Your task to perform on an android device: Go to Google maps Image 0: 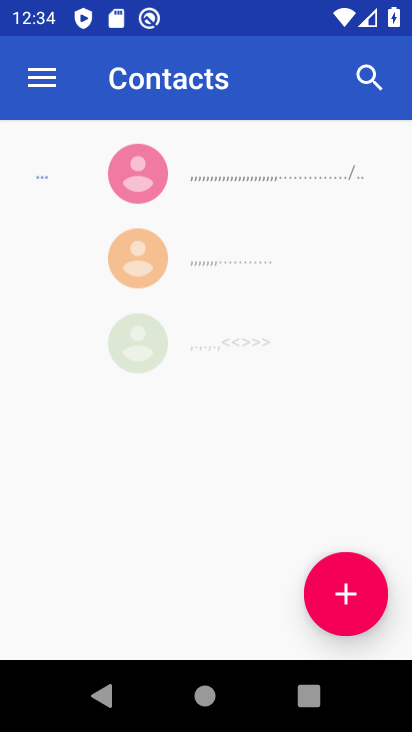
Step 0: drag from (356, 541) to (320, 277)
Your task to perform on an android device: Go to Google maps Image 1: 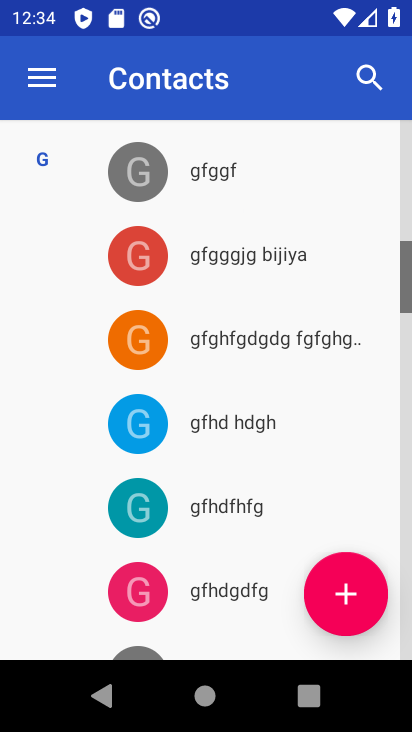
Step 1: press home button
Your task to perform on an android device: Go to Google maps Image 2: 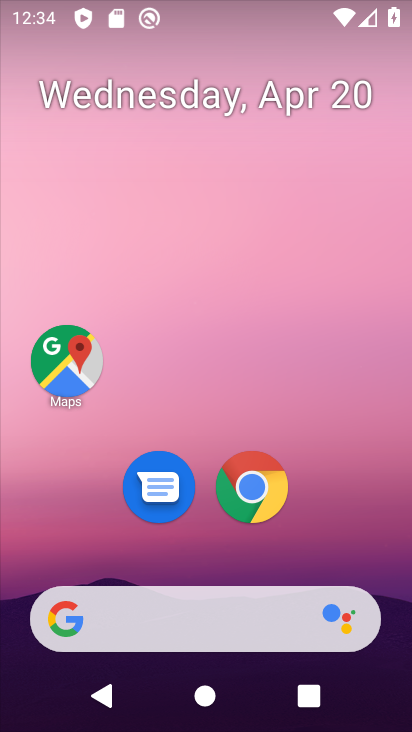
Step 2: drag from (347, 546) to (244, 33)
Your task to perform on an android device: Go to Google maps Image 3: 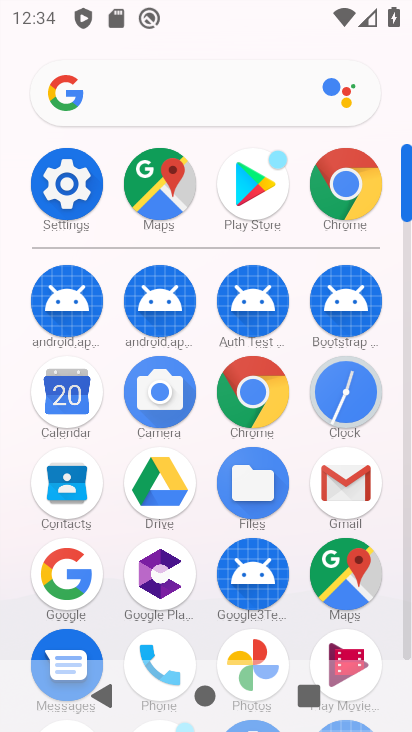
Step 3: click (330, 565)
Your task to perform on an android device: Go to Google maps Image 4: 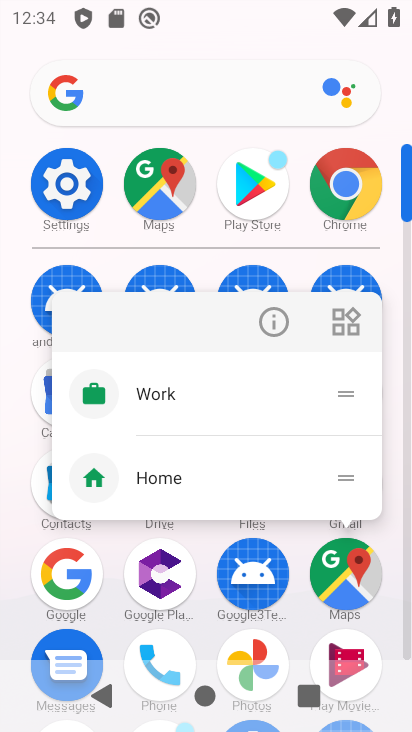
Step 4: click (330, 565)
Your task to perform on an android device: Go to Google maps Image 5: 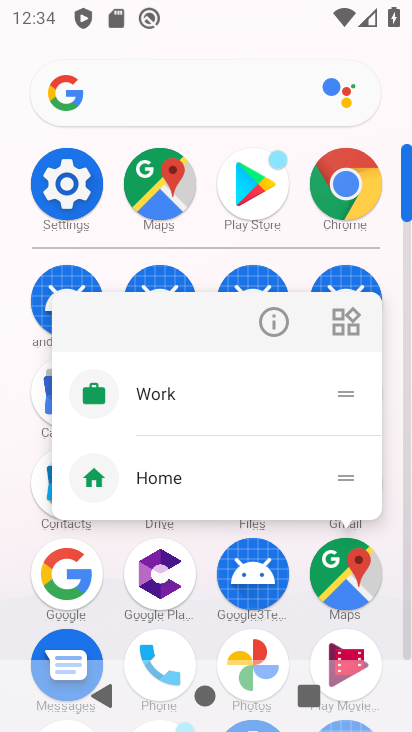
Step 5: click (330, 565)
Your task to perform on an android device: Go to Google maps Image 6: 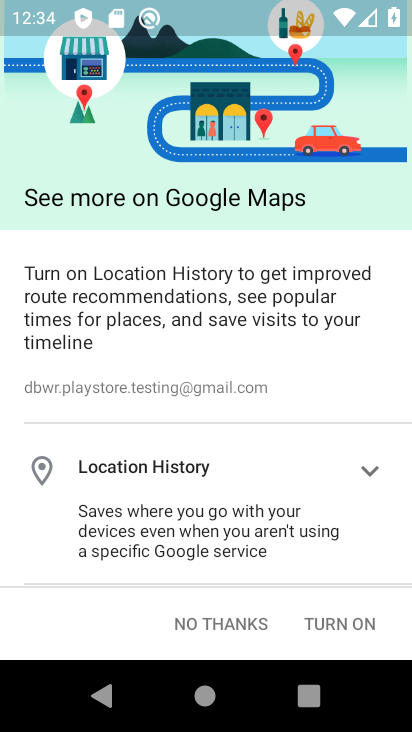
Step 6: click (240, 624)
Your task to perform on an android device: Go to Google maps Image 7: 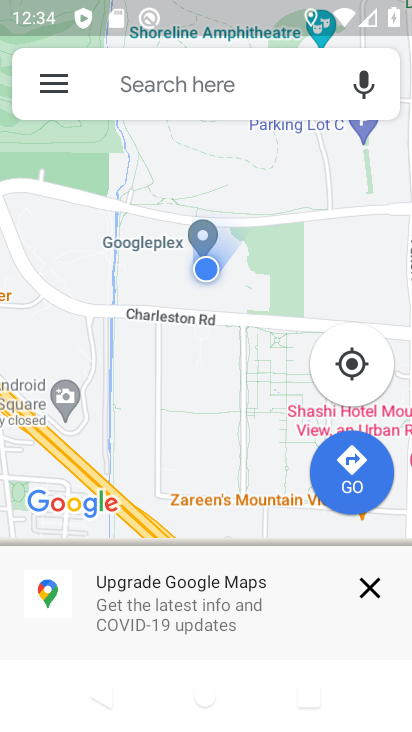
Step 7: task complete